Your task to perform on an android device: turn on wifi Image 0: 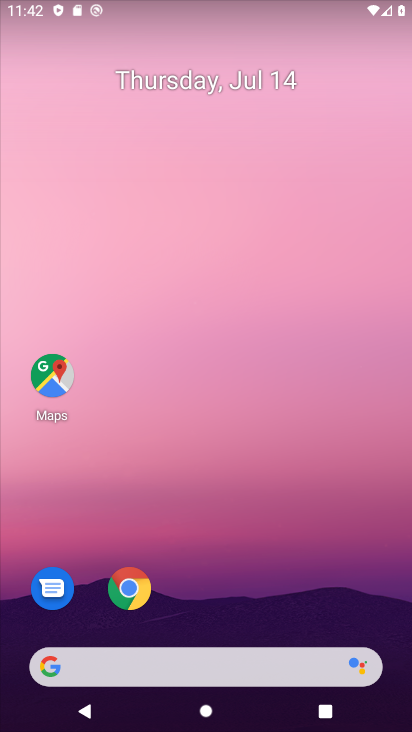
Step 0: drag from (130, 636) to (276, 21)
Your task to perform on an android device: turn on wifi Image 1: 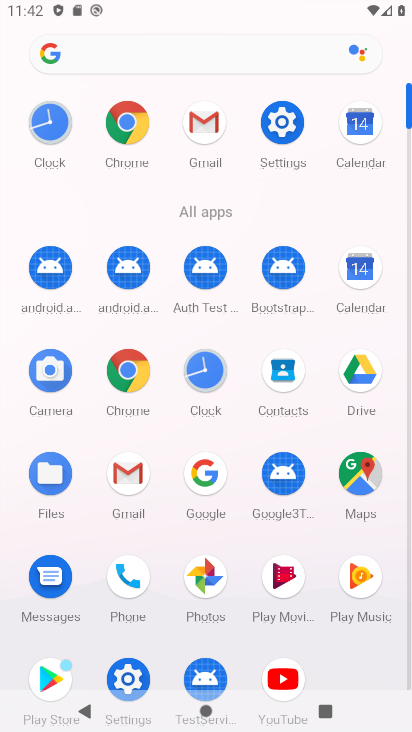
Step 1: click (274, 121)
Your task to perform on an android device: turn on wifi Image 2: 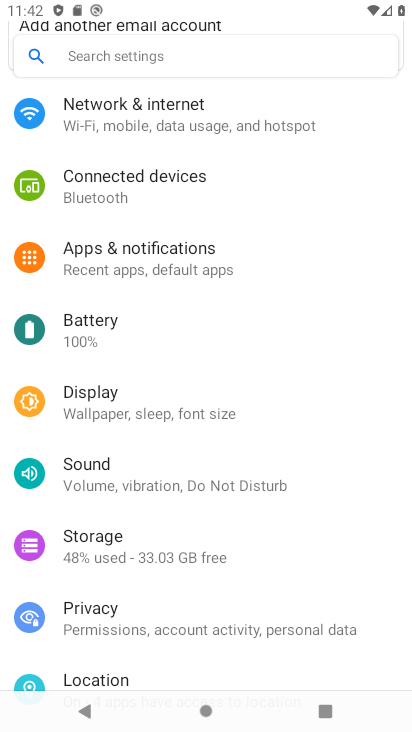
Step 2: drag from (266, 152) to (237, 721)
Your task to perform on an android device: turn on wifi Image 3: 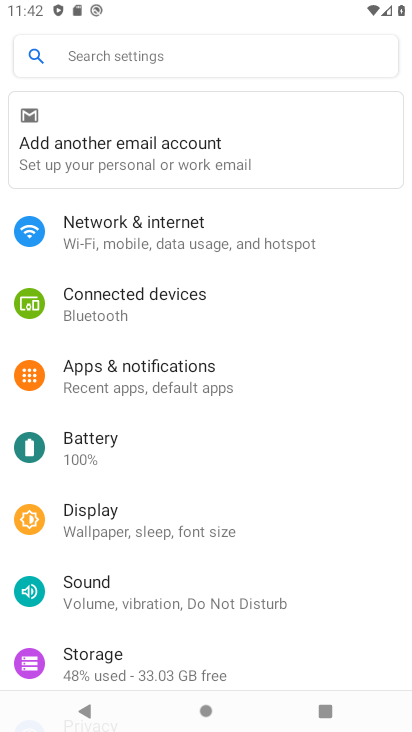
Step 3: click (249, 235)
Your task to perform on an android device: turn on wifi Image 4: 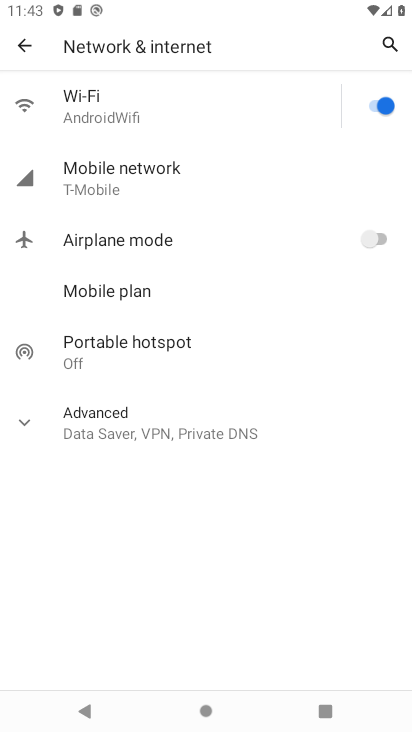
Step 4: task complete